Your task to perform on an android device: turn pop-ups off in chrome Image 0: 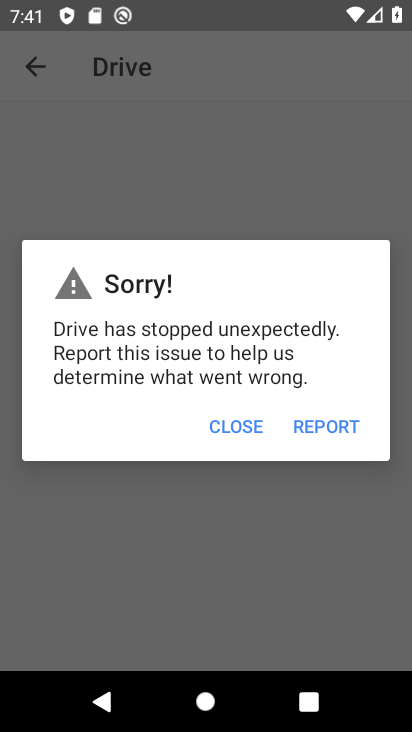
Step 0: press home button
Your task to perform on an android device: turn pop-ups off in chrome Image 1: 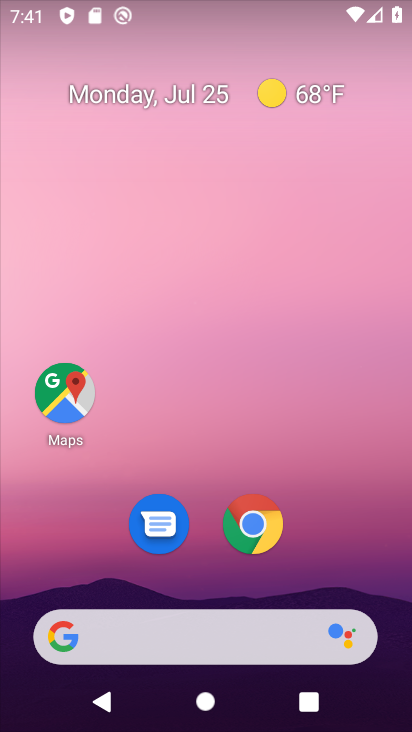
Step 1: click (257, 526)
Your task to perform on an android device: turn pop-ups off in chrome Image 2: 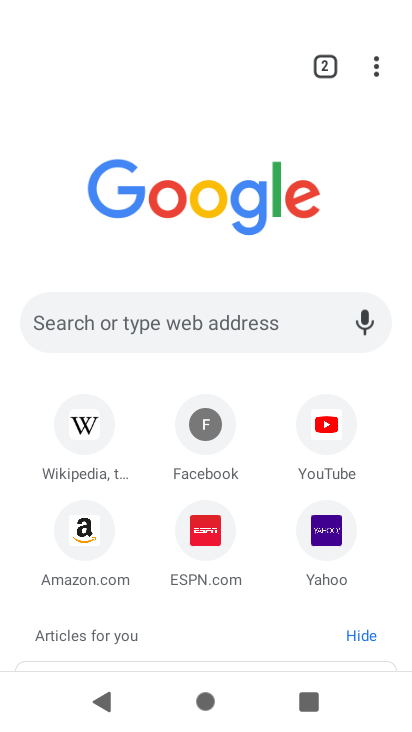
Step 2: click (373, 67)
Your task to perform on an android device: turn pop-ups off in chrome Image 3: 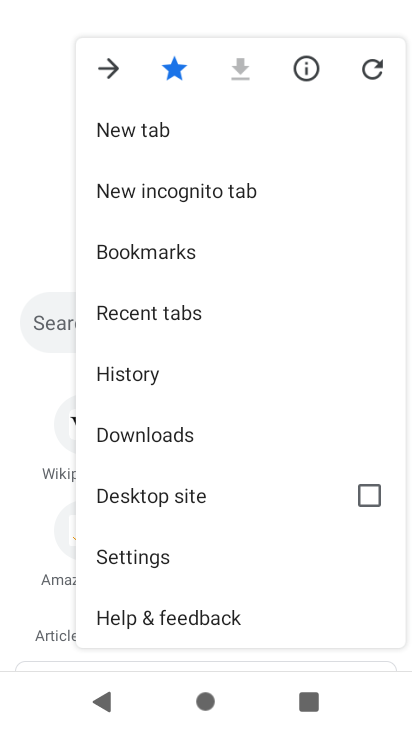
Step 3: click (161, 554)
Your task to perform on an android device: turn pop-ups off in chrome Image 4: 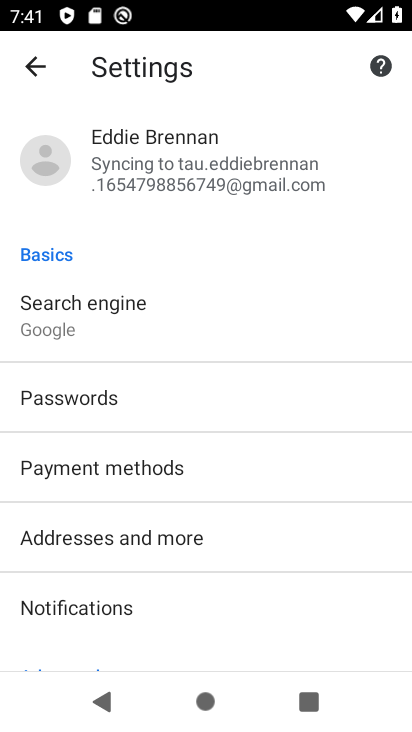
Step 4: drag from (161, 554) to (191, 276)
Your task to perform on an android device: turn pop-ups off in chrome Image 5: 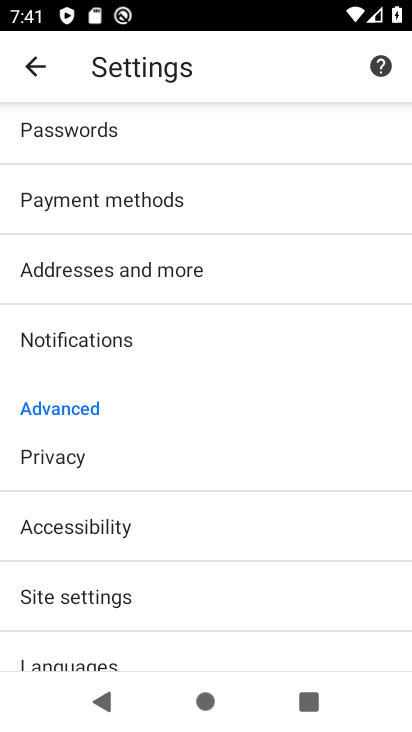
Step 5: click (106, 586)
Your task to perform on an android device: turn pop-ups off in chrome Image 6: 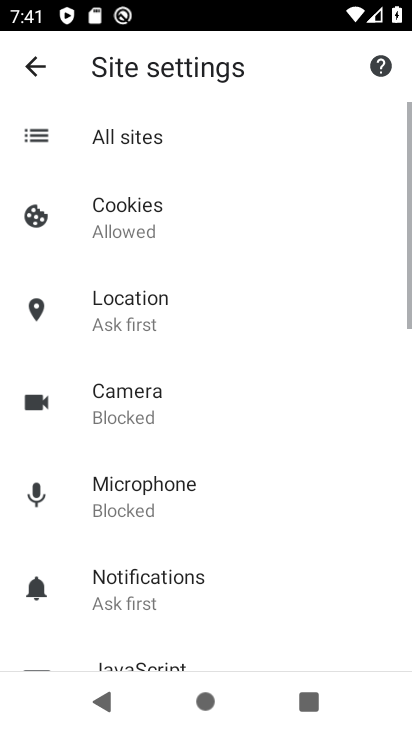
Step 6: click (106, 586)
Your task to perform on an android device: turn pop-ups off in chrome Image 7: 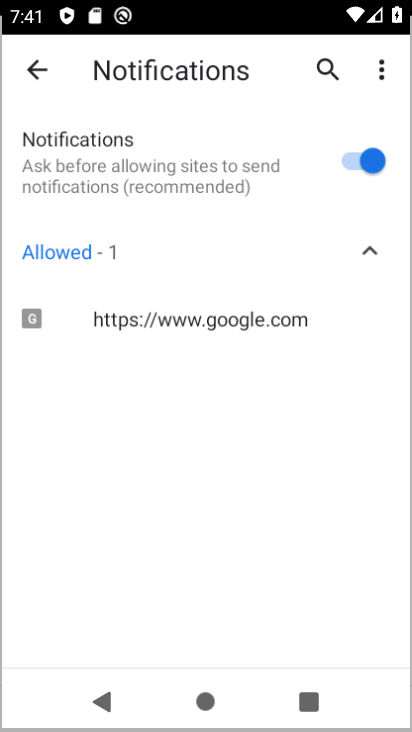
Step 7: drag from (106, 586) to (137, 385)
Your task to perform on an android device: turn pop-ups off in chrome Image 8: 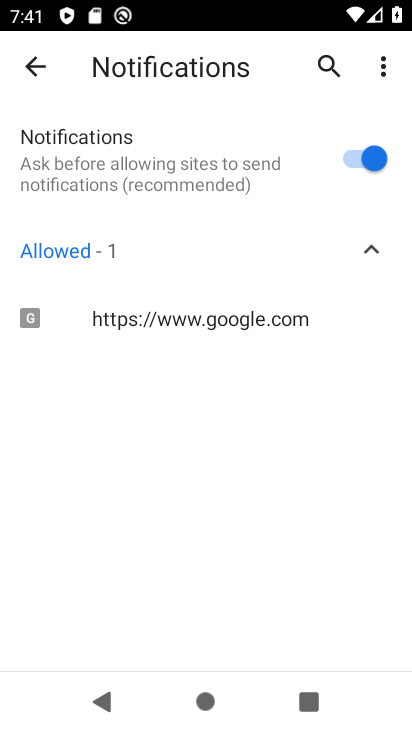
Step 8: click (35, 61)
Your task to perform on an android device: turn pop-ups off in chrome Image 9: 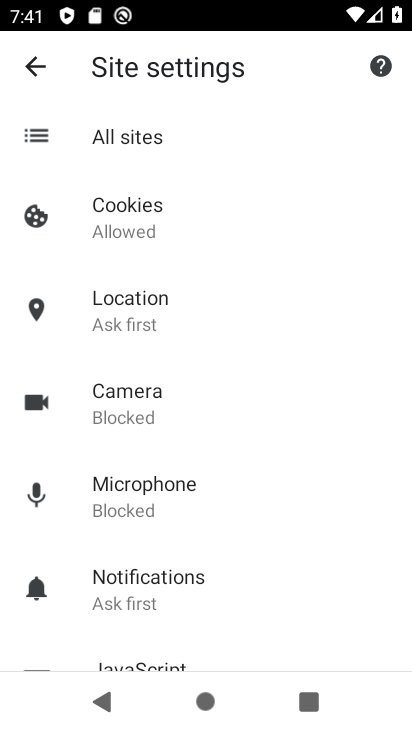
Step 9: drag from (205, 449) to (239, 265)
Your task to perform on an android device: turn pop-ups off in chrome Image 10: 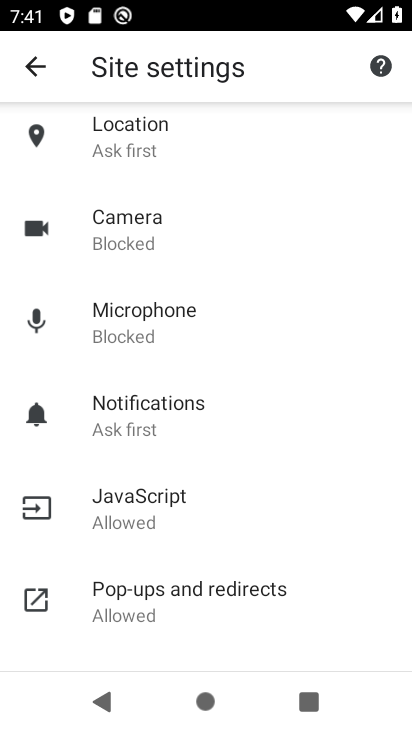
Step 10: click (180, 592)
Your task to perform on an android device: turn pop-ups off in chrome Image 11: 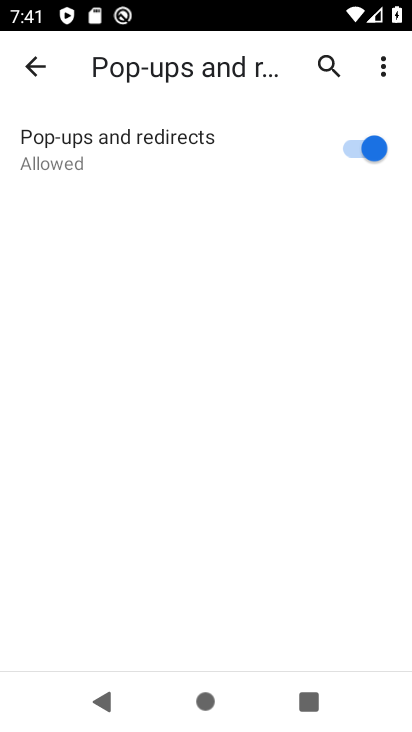
Step 11: click (365, 137)
Your task to perform on an android device: turn pop-ups off in chrome Image 12: 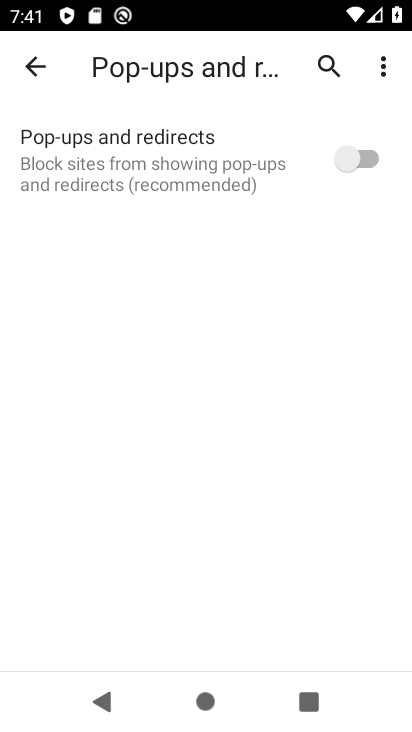
Step 12: task complete